Your task to perform on an android device: Check the weather Image 0: 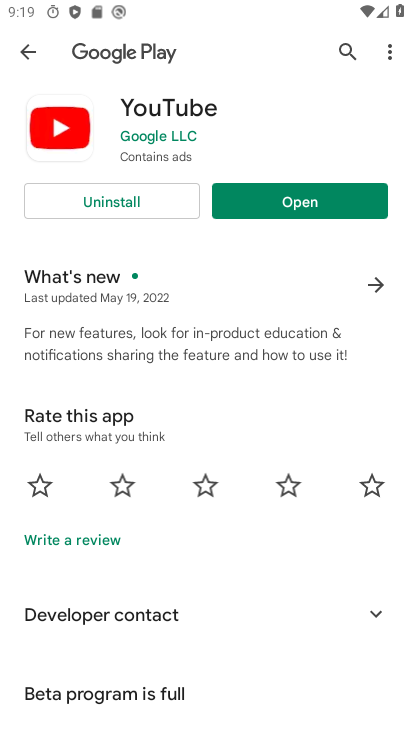
Step 0: press home button
Your task to perform on an android device: Check the weather Image 1: 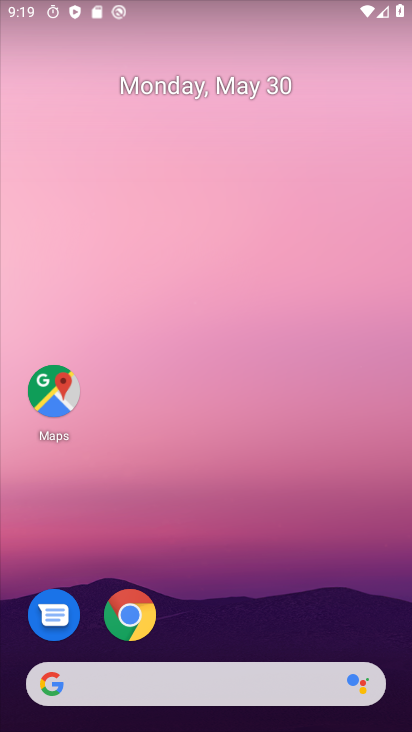
Step 1: click (126, 708)
Your task to perform on an android device: Check the weather Image 2: 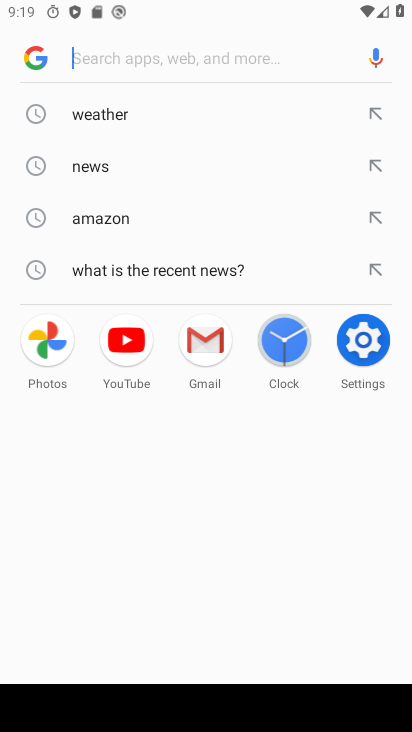
Step 2: click (130, 702)
Your task to perform on an android device: Check the weather Image 3: 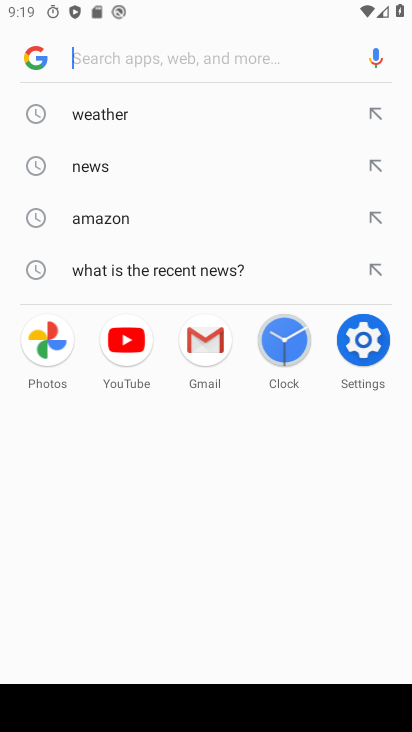
Step 3: click (160, 111)
Your task to perform on an android device: Check the weather Image 4: 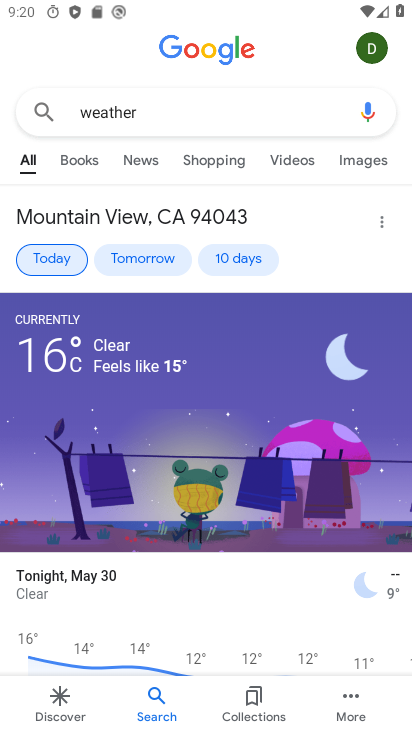
Step 4: task complete